Your task to perform on an android device: create a new album in the google photos Image 0: 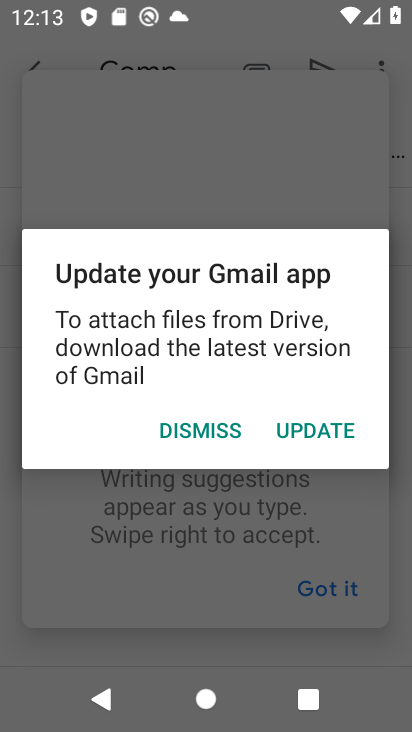
Step 0: press home button
Your task to perform on an android device: create a new album in the google photos Image 1: 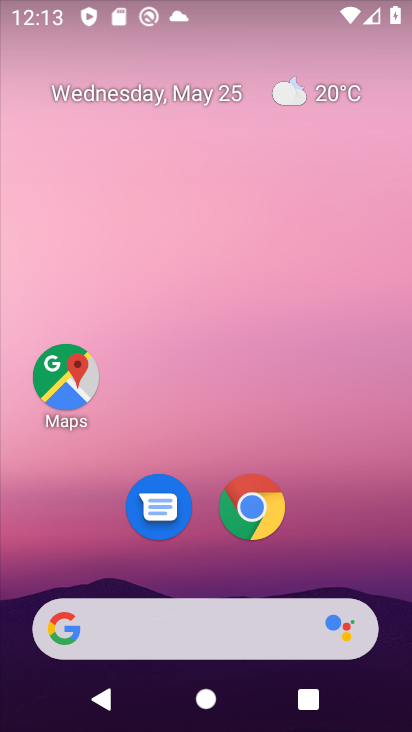
Step 1: drag from (375, 476) to (381, 142)
Your task to perform on an android device: create a new album in the google photos Image 2: 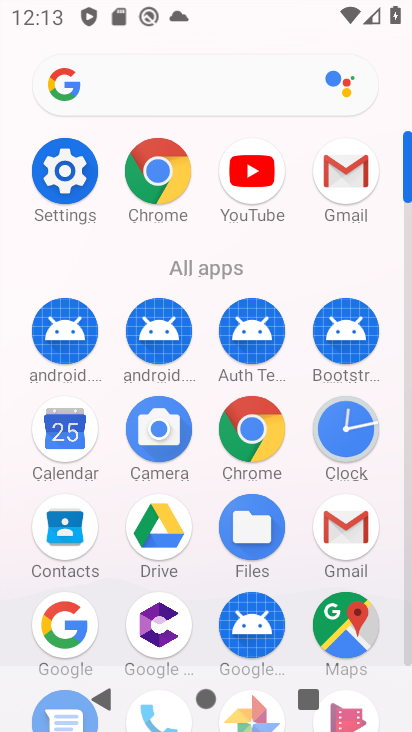
Step 2: drag from (156, 523) to (188, 315)
Your task to perform on an android device: create a new album in the google photos Image 3: 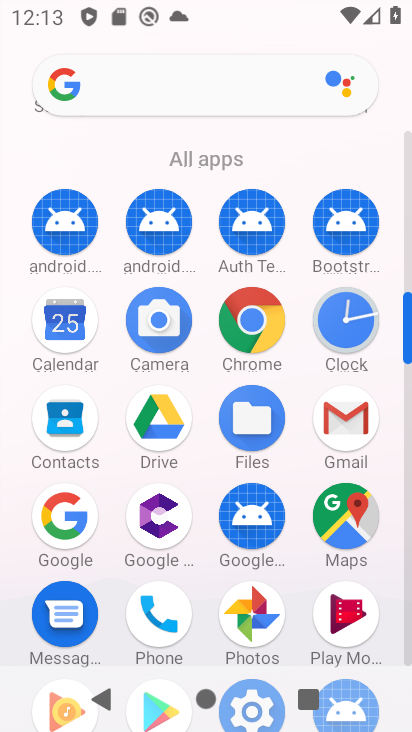
Step 3: click (247, 613)
Your task to perform on an android device: create a new album in the google photos Image 4: 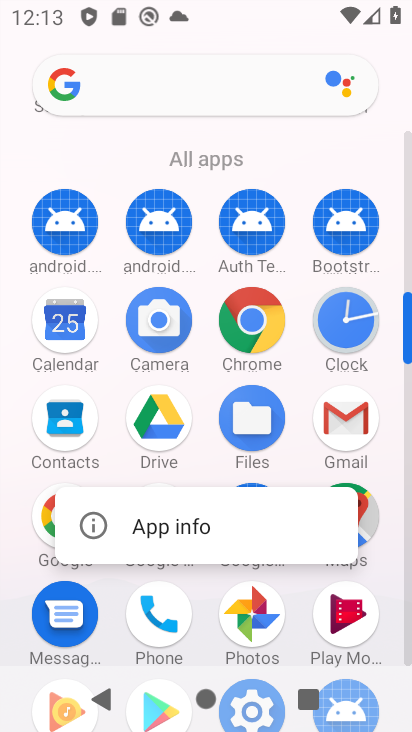
Step 4: click (254, 621)
Your task to perform on an android device: create a new album in the google photos Image 5: 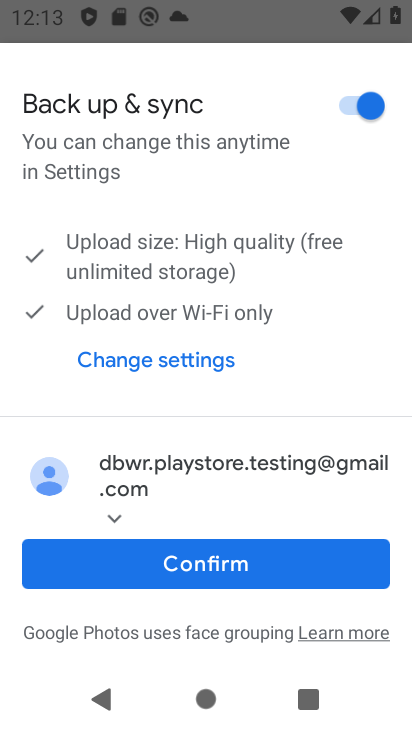
Step 5: click (262, 565)
Your task to perform on an android device: create a new album in the google photos Image 6: 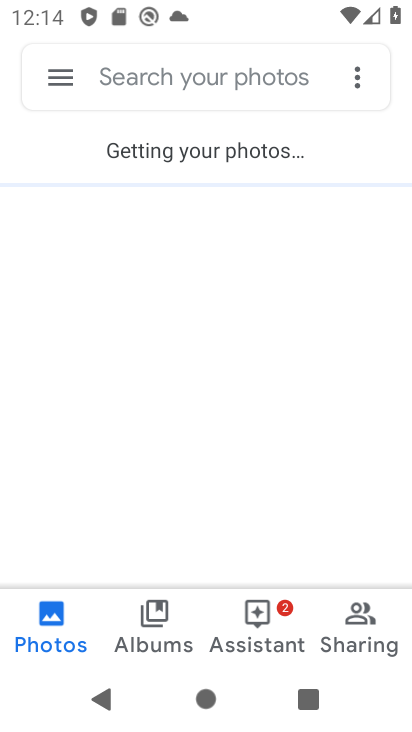
Step 6: click (169, 618)
Your task to perform on an android device: create a new album in the google photos Image 7: 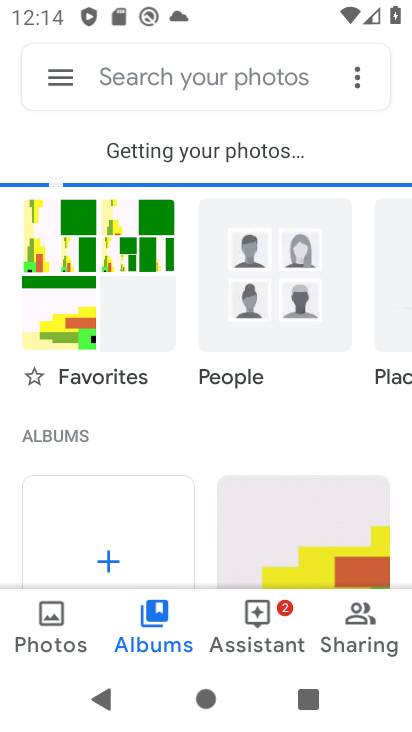
Step 7: click (112, 560)
Your task to perform on an android device: create a new album in the google photos Image 8: 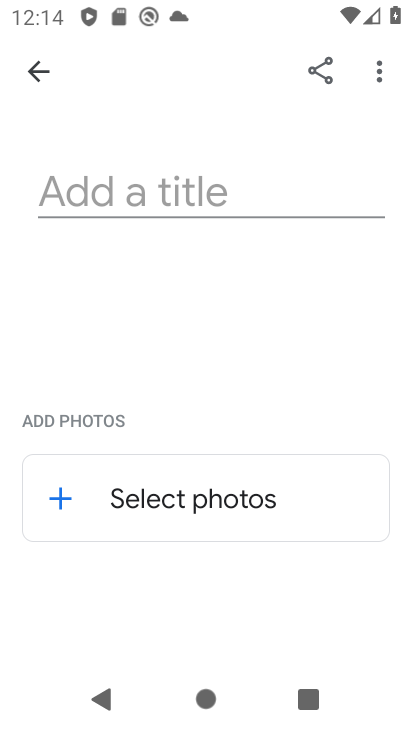
Step 8: click (109, 201)
Your task to perform on an android device: create a new album in the google photos Image 9: 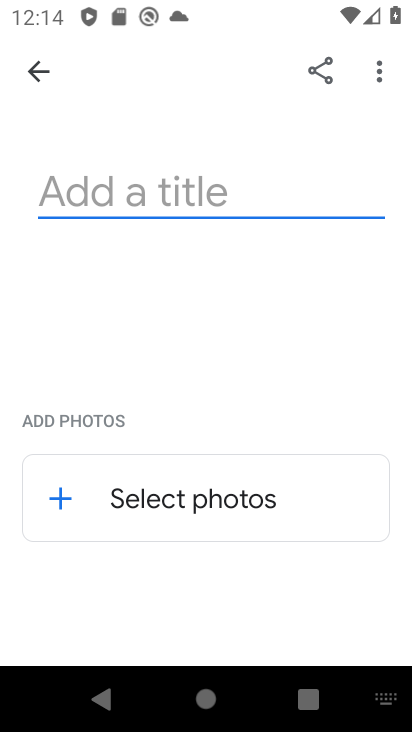
Step 9: type "uhig"
Your task to perform on an android device: create a new album in the google photos Image 10: 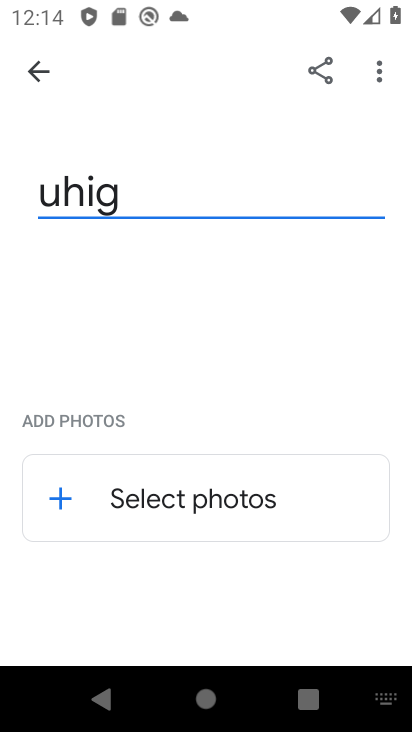
Step 10: click (59, 504)
Your task to perform on an android device: create a new album in the google photos Image 11: 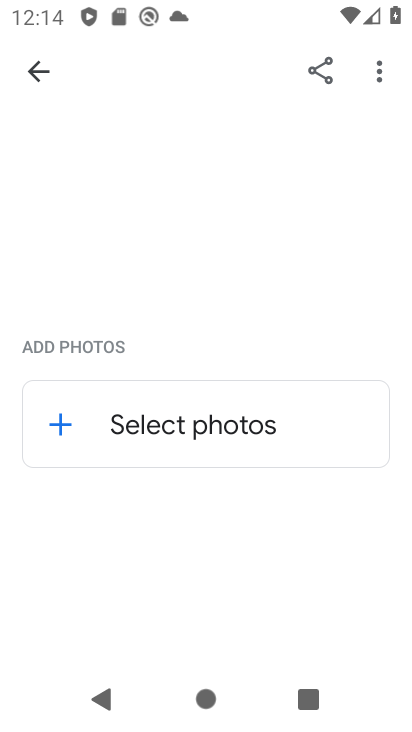
Step 11: click (53, 430)
Your task to perform on an android device: create a new album in the google photos Image 12: 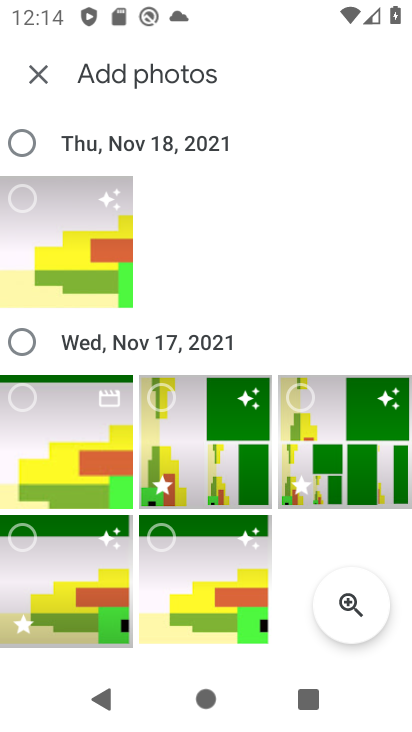
Step 12: click (15, 196)
Your task to perform on an android device: create a new album in the google photos Image 13: 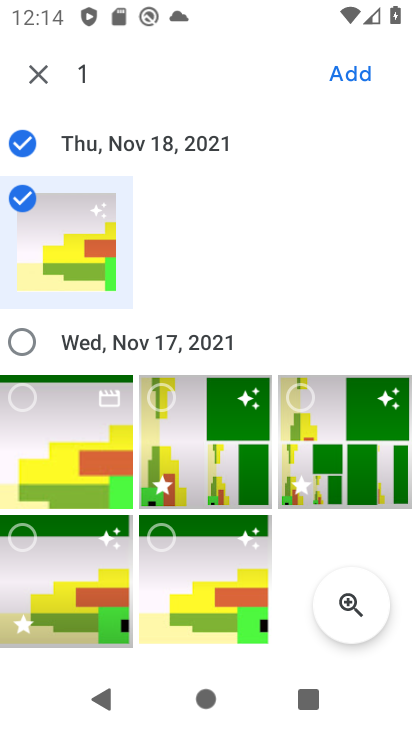
Step 13: click (338, 82)
Your task to perform on an android device: create a new album in the google photos Image 14: 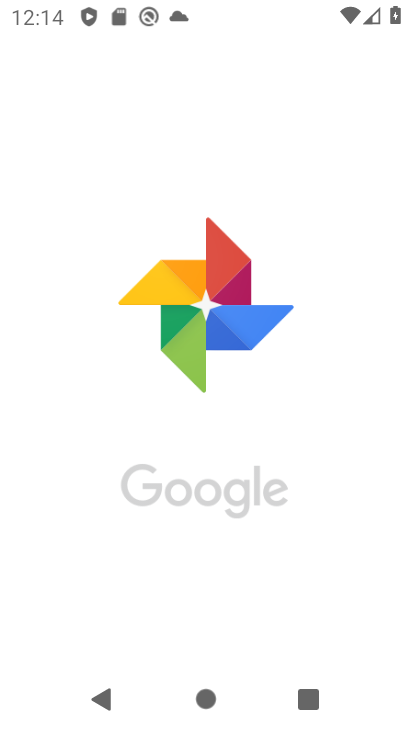
Step 14: task complete